Your task to perform on an android device: Open sound settings Image 0: 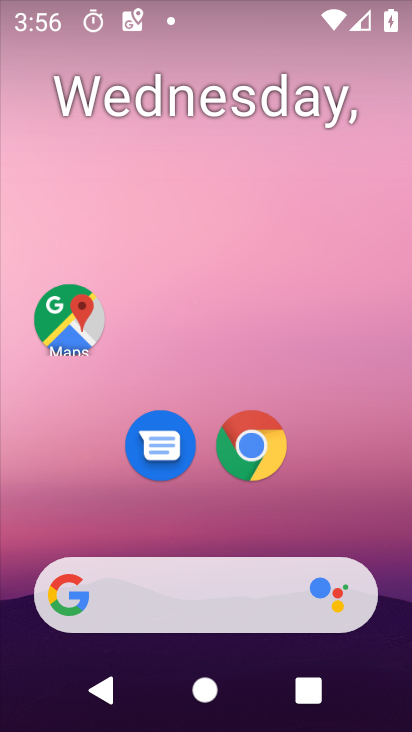
Step 0: drag from (199, 500) to (232, 56)
Your task to perform on an android device: Open sound settings Image 1: 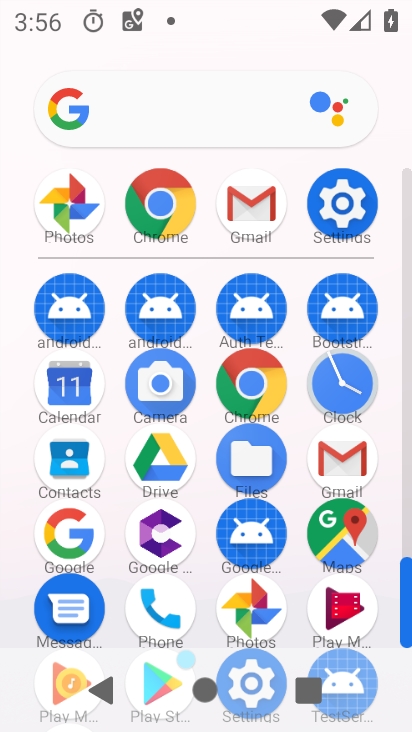
Step 1: click (337, 203)
Your task to perform on an android device: Open sound settings Image 2: 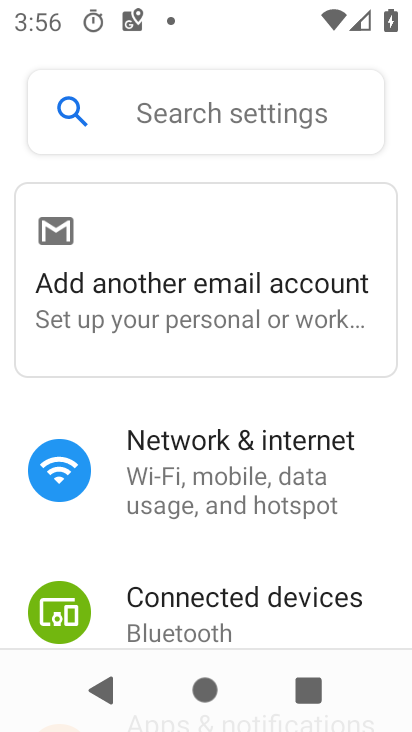
Step 2: drag from (249, 585) to (248, 6)
Your task to perform on an android device: Open sound settings Image 3: 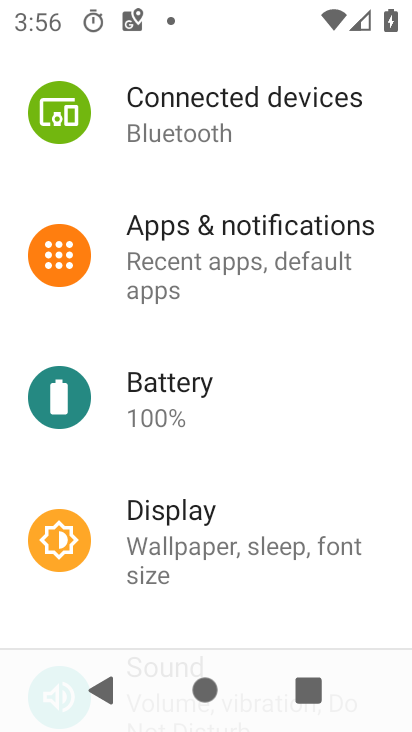
Step 3: drag from (257, 550) to (257, 154)
Your task to perform on an android device: Open sound settings Image 4: 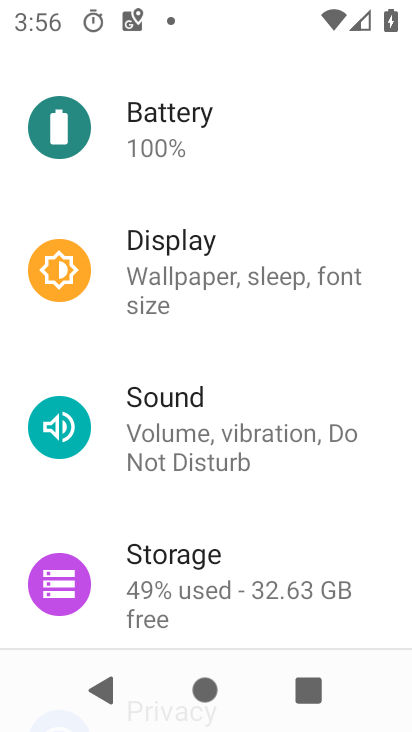
Step 4: click (161, 422)
Your task to perform on an android device: Open sound settings Image 5: 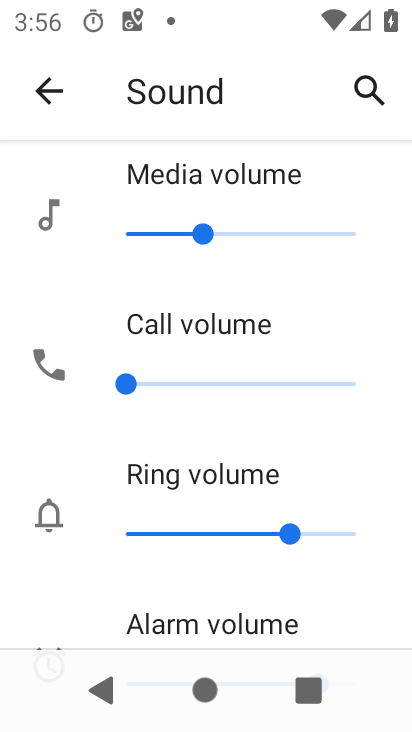
Step 5: task complete